Your task to perform on an android device: When is my next appointment? Image 0: 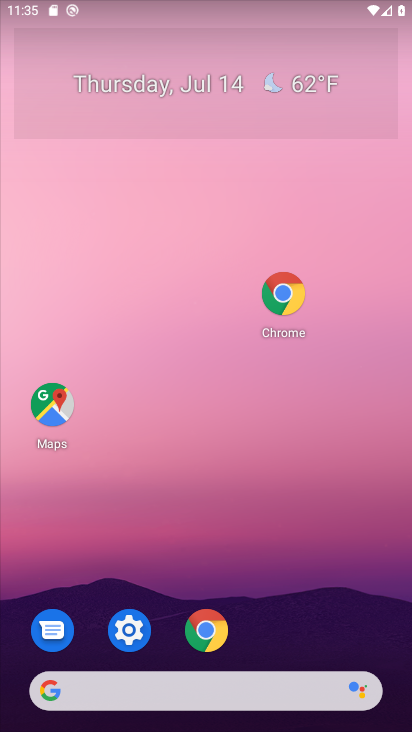
Step 0: drag from (226, 424) to (115, 92)
Your task to perform on an android device: When is my next appointment? Image 1: 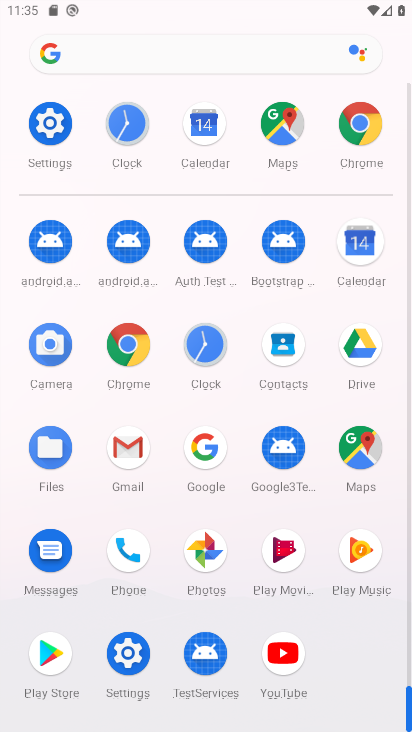
Step 1: drag from (231, 611) to (166, 29)
Your task to perform on an android device: When is my next appointment? Image 2: 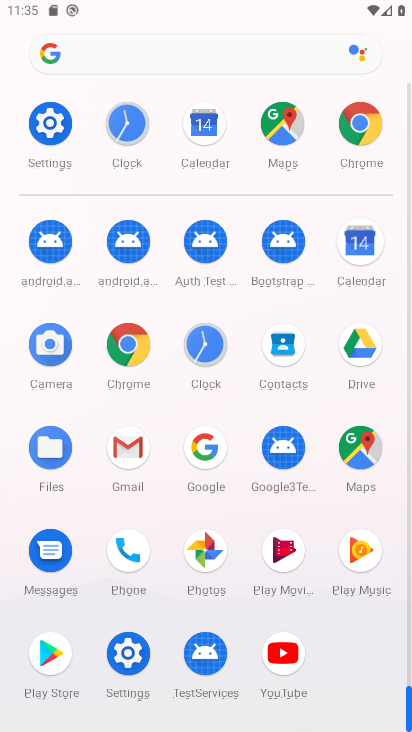
Step 2: click (121, 137)
Your task to perform on an android device: When is my next appointment? Image 3: 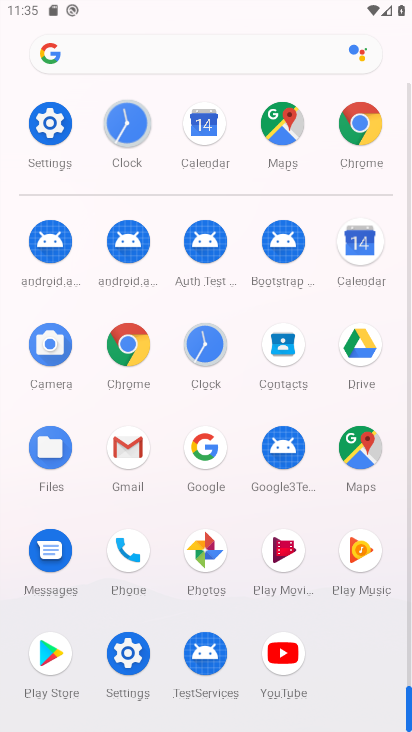
Step 3: click (122, 139)
Your task to perform on an android device: When is my next appointment? Image 4: 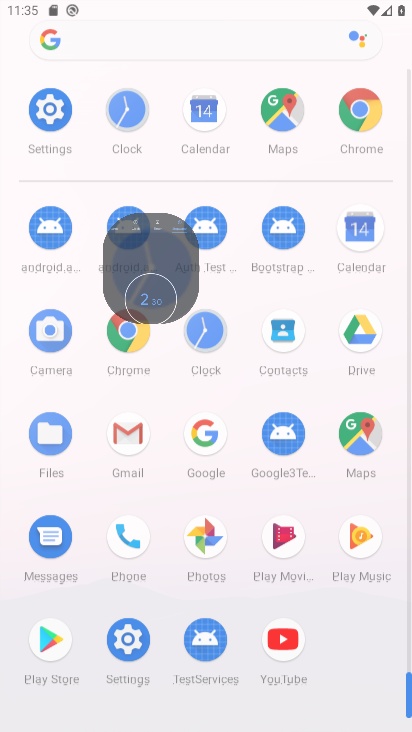
Step 4: click (118, 154)
Your task to perform on an android device: When is my next appointment? Image 5: 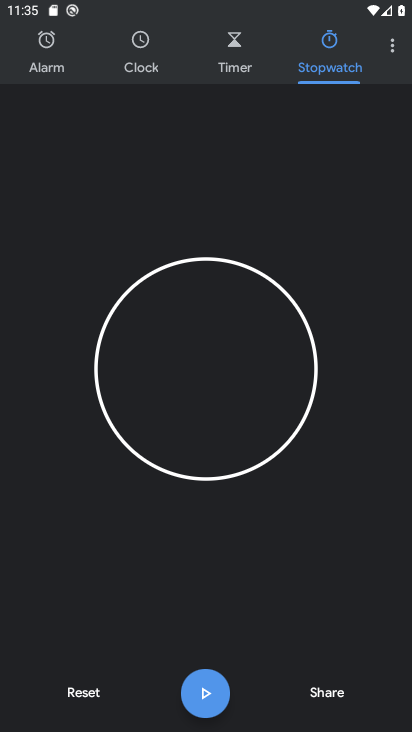
Step 5: press back button
Your task to perform on an android device: When is my next appointment? Image 6: 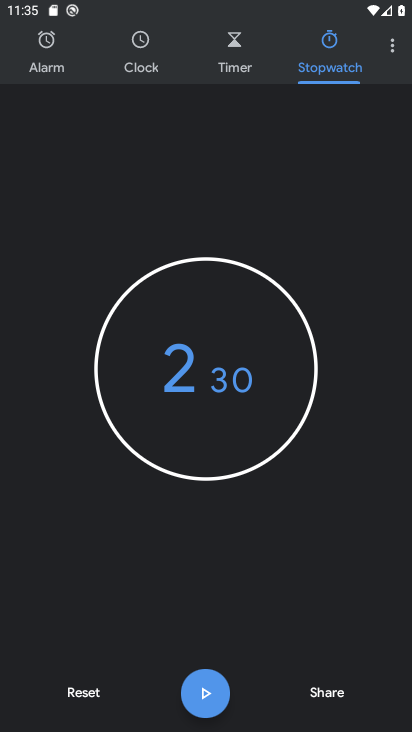
Step 6: press back button
Your task to perform on an android device: When is my next appointment? Image 7: 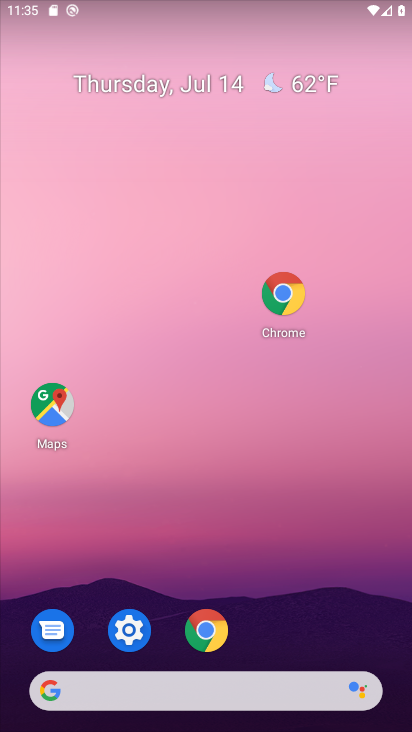
Step 7: drag from (247, 588) to (203, 216)
Your task to perform on an android device: When is my next appointment? Image 8: 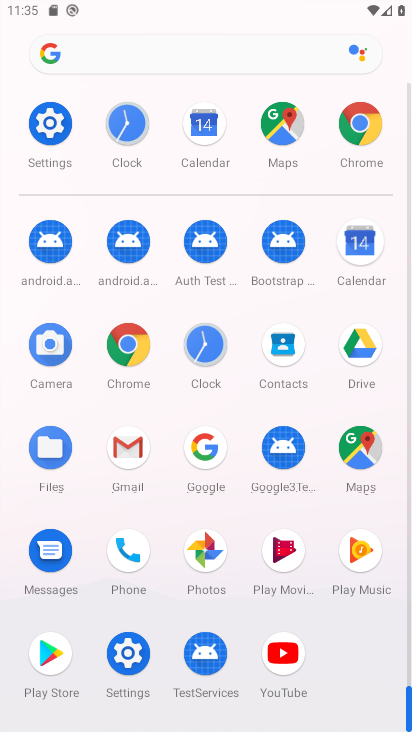
Step 8: click (368, 245)
Your task to perform on an android device: When is my next appointment? Image 9: 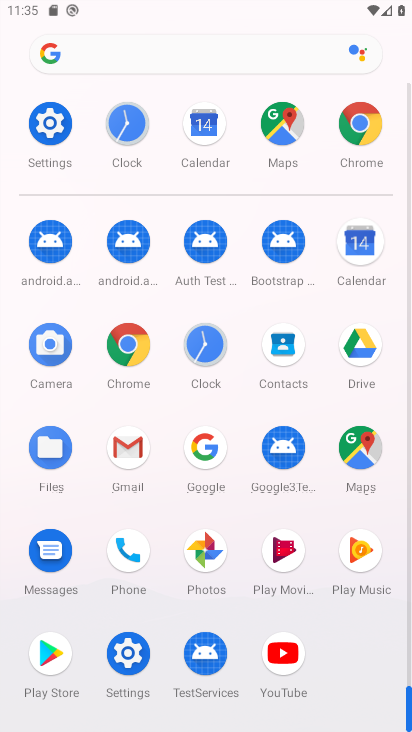
Step 9: click (367, 248)
Your task to perform on an android device: When is my next appointment? Image 10: 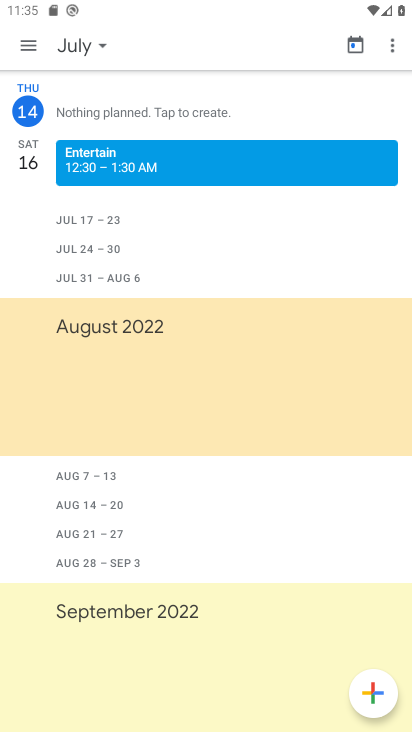
Step 10: click (96, 48)
Your task to perform on an android device: When is my next appointment? Image 11: 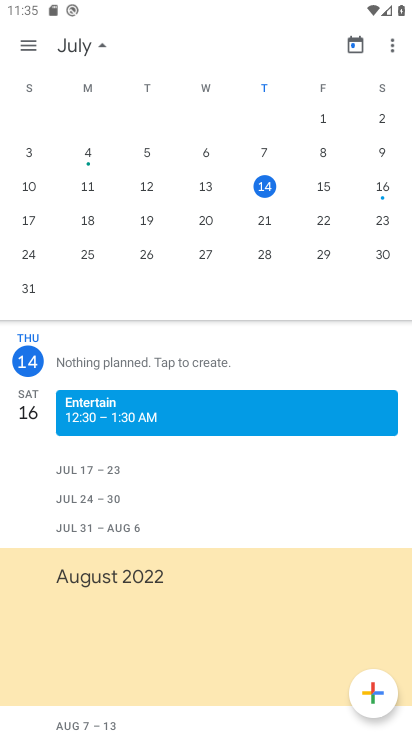
Step 11: click (318, 177)
Your task to perform on an android device: When is my next appointment? Image 12: 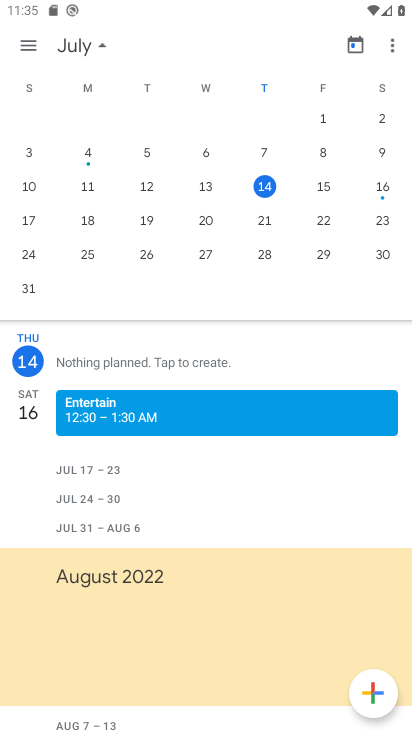
Step 12: click (322, 182)
Your task to perform on an android device: When is my next appointment? Image 13: 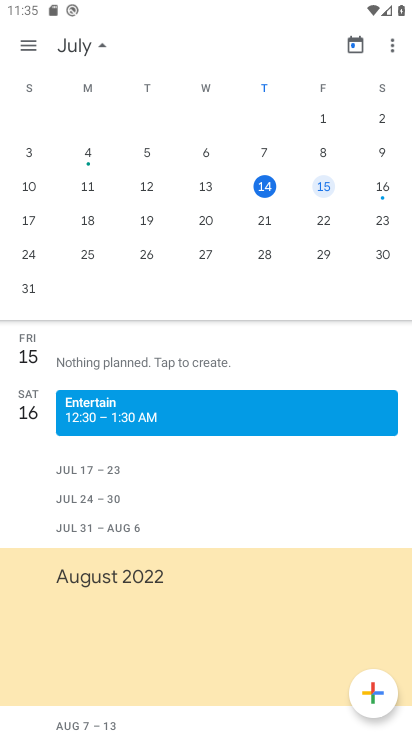
Step 13: click (322, 183)
Your task to perform on an android device: When is my next appointment? Image 14: 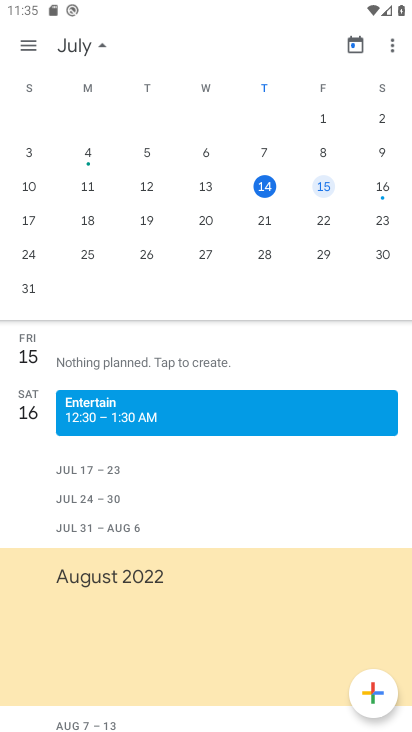
Step 14: click (380, 190)
Your task to perform on an android device: When is my next appointment? Image 15: 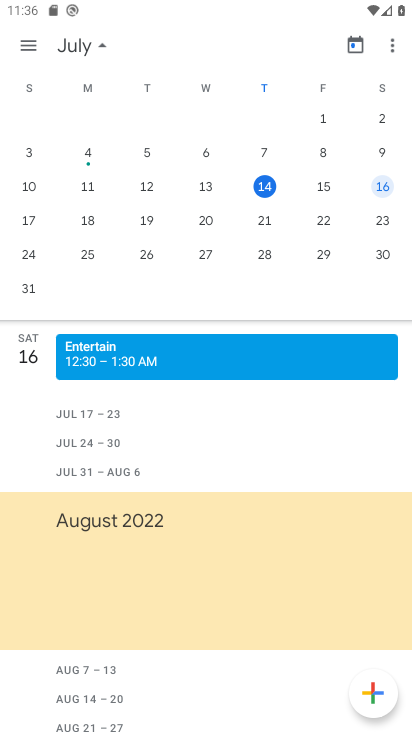
Step 15: task complete